Your task to perform on an android device: turn off sleep mode Image 0: 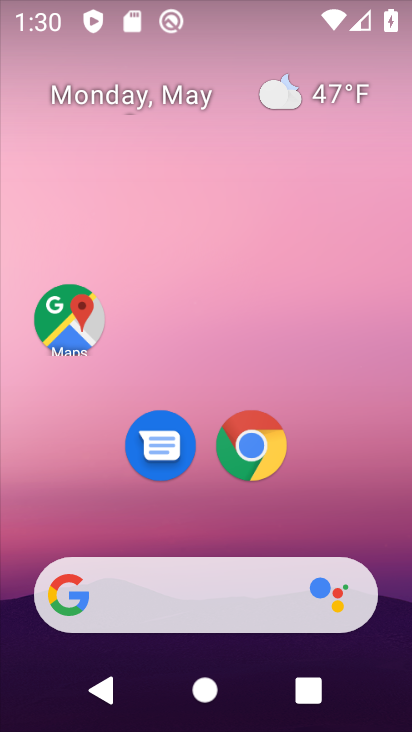
Step 0: drag from (266, 539) to (292, 20)
Your task to perform on an android device: turn off sleep mode Image 1: 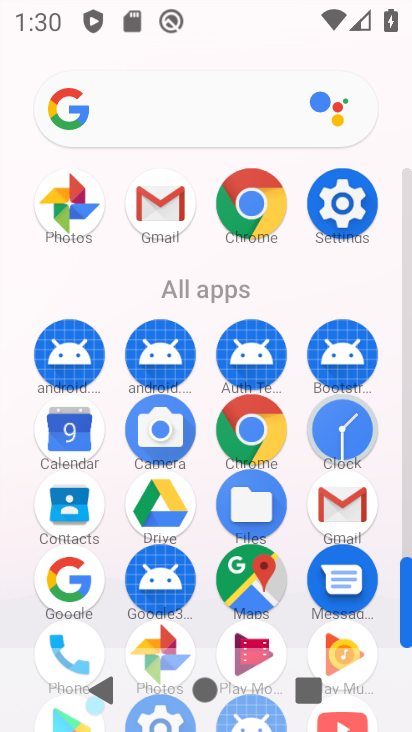
Step 1: click (333, 212)
Your task to perform on an android device: turn off sleep mode Image 2: 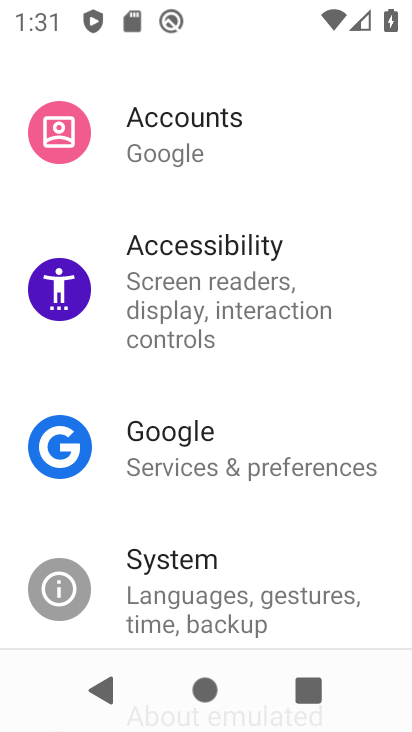
Step 2: drag from (197, 487) to (301, 95)
Your task to perform on an android device: turn off sleep mode Image 3: 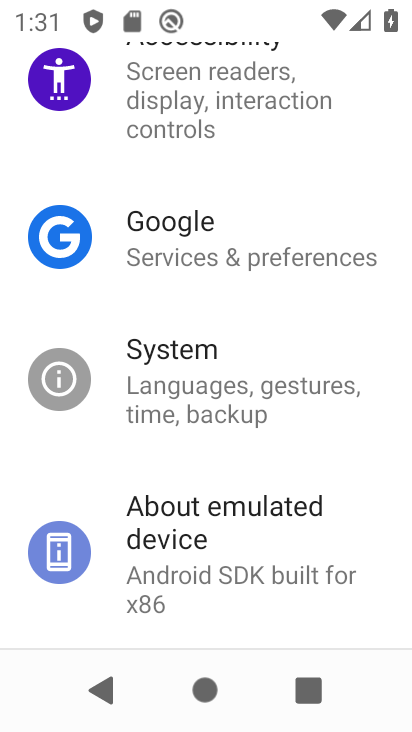
Step 3: drag from (288, 367) to (302, 458)
Your task to perform on an android device: turn off sleep mode Image 4: 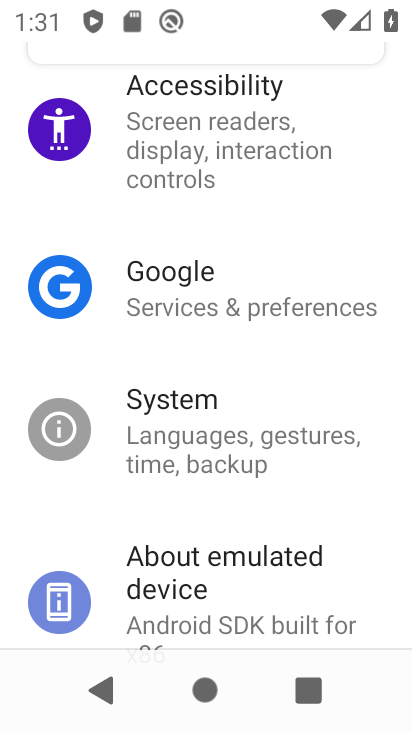
Step 4: drag from (296, 350) to (315, 453)
Your task to perform on an android device: turn off sleep mode Image 5: 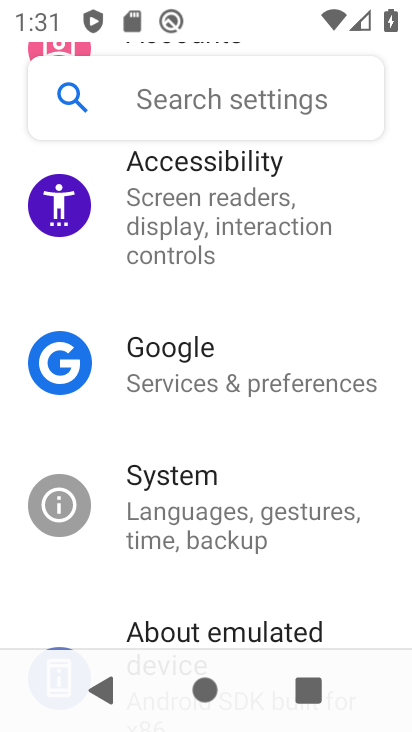
Step 5: drag from (282, 354) to (283, 448)
Your task to perform on an android device: turn off sleep mode Image 6: 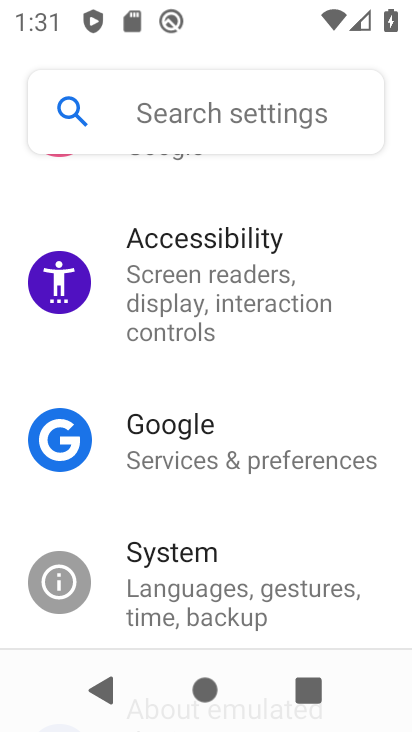
Step 6: drag from (268, 326) to (296, 388)
Your task to perform on an android device: turn off sleep mode Image 7: 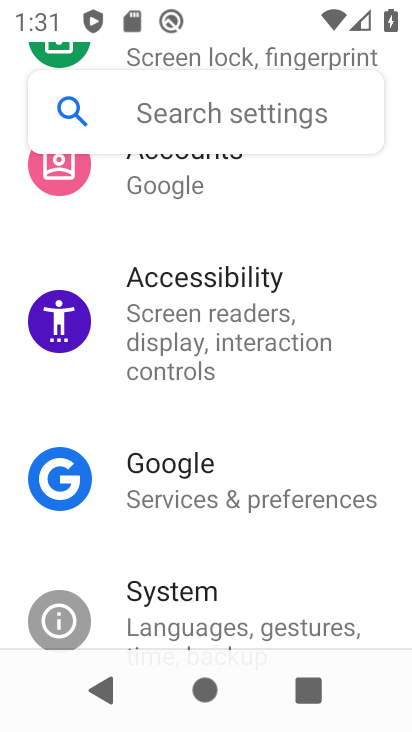
Step 7: drag from (296, 327) to (317, 406)
Your task to perform on an android device: turn off sleep mode Image 8: 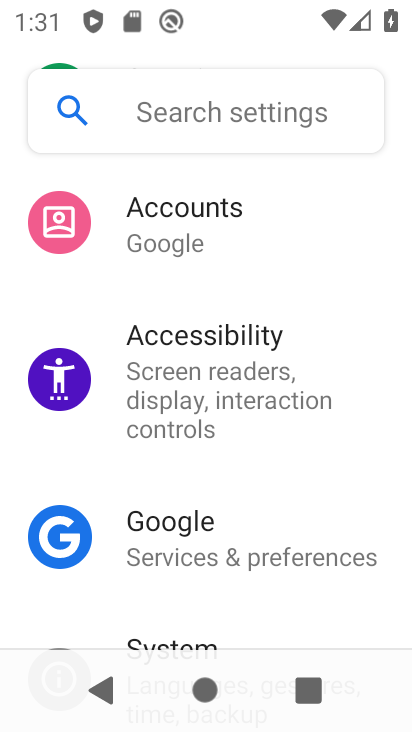
Step 8: drag from (304, 318) to (323, 412)
Your task to perform on an android device: turn off sleep mode Image 9: 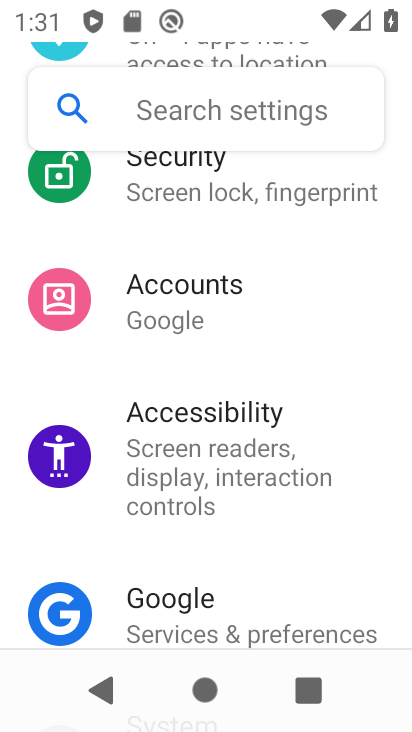
Step 9: drag from (314, 315) to (334, 396)
Your task to perform on an android device: turn off sleep mode Image 10: 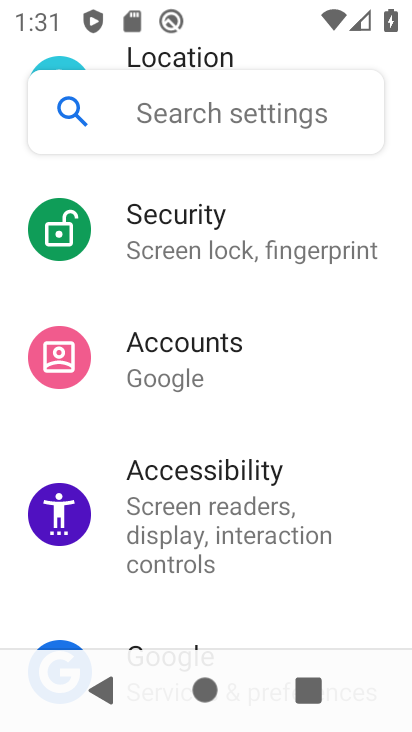
Step 10: drag from (292, 299) to (312, 365)
Your task to perform on an android device: turn off sleep mode Image 11: 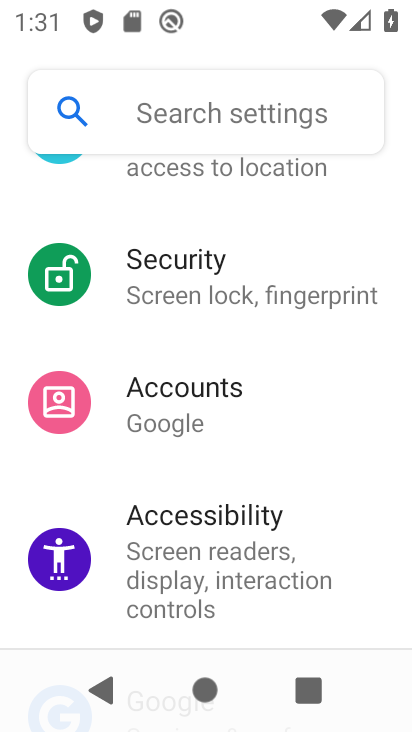
Step 11: drag from (300, 322) to (309, 362)
Your task to perform on an android device: turn off sleep mode Image 12: 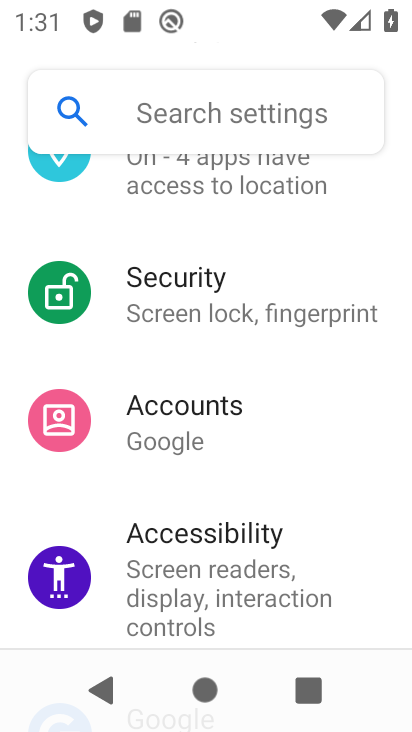
Step 12: drag from (299, 309) to (316, 359)
Your task to perform on an android device: turn off sleep mode Image 13: 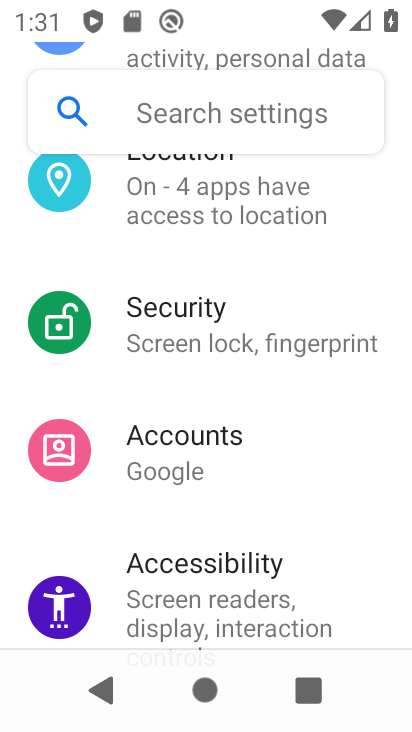
Step 13: drag from (299, 308) to (319, 358)
Your task to perform on an android device: turn off sleep mode Image 14: 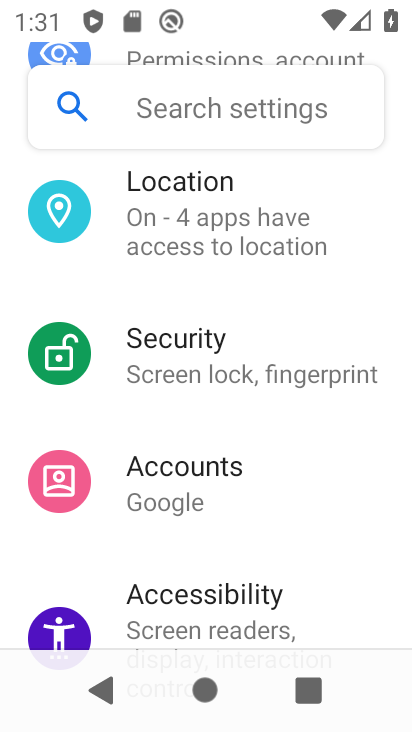
Step 14: drag from (327, 286) to (336, 334)
Your task to perform on an android device: turn off sleep mode Image 15: 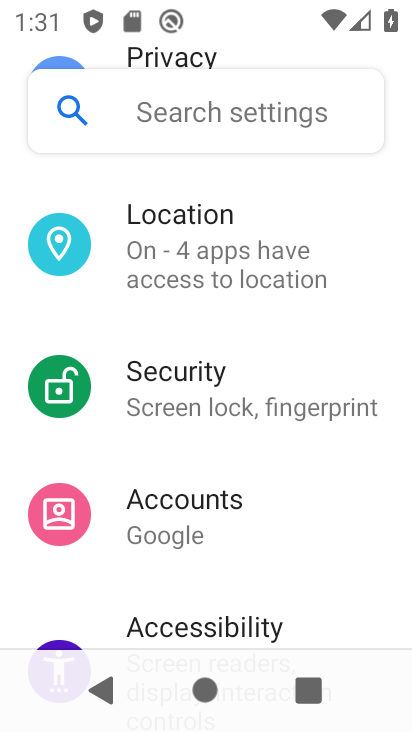
Step 15: drag from (327, 283) to (333, 342)
Your task to perform on an android device: turn off sleep mode Image 16: 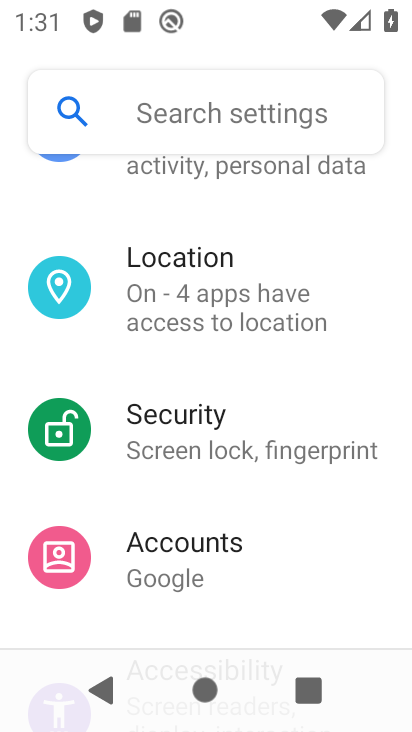
Step 16: drag from (322, 288) to (333, 363)
Your task to perform on an android device: turn off sleep mode Image 17: 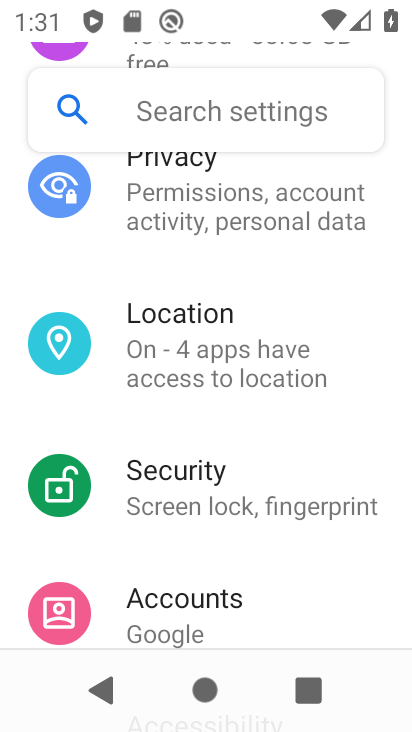
Step 17: drag from (306, 289) to (335, 360)
Your task to perform on an android device: turn off sleep mode Image 18: 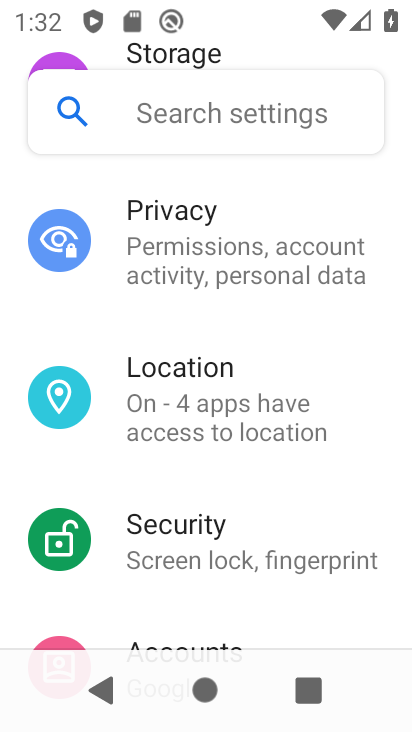
Step 18: drag from (322, 286) to (332, 361)
Your task to perform on an android device: turn off sleep mode Image 19: 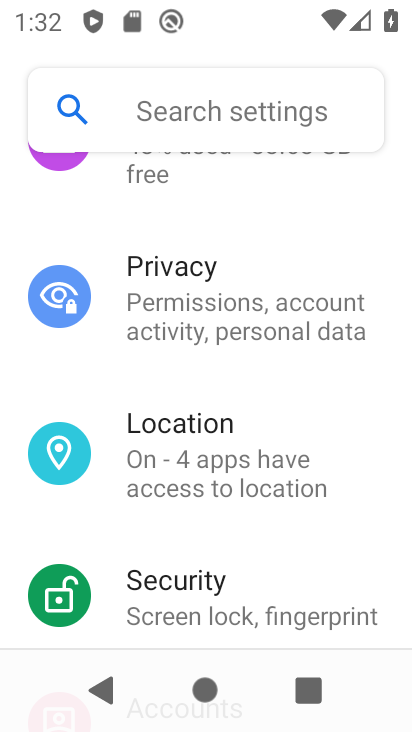
Step 19: drag from (309, 281) to (321, 360)
Your task to perform on an android device: turn off sleep mode Image 20: 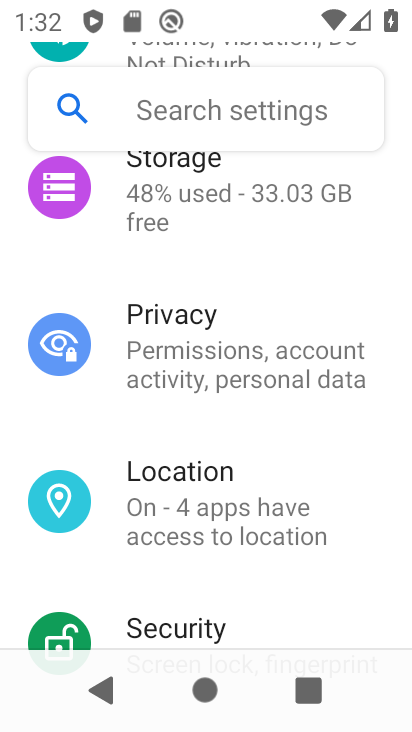
Step 20: drag from (294, 280) to (320, 401)
Your task to perform on an android device: turn off sleep mode Image 21: 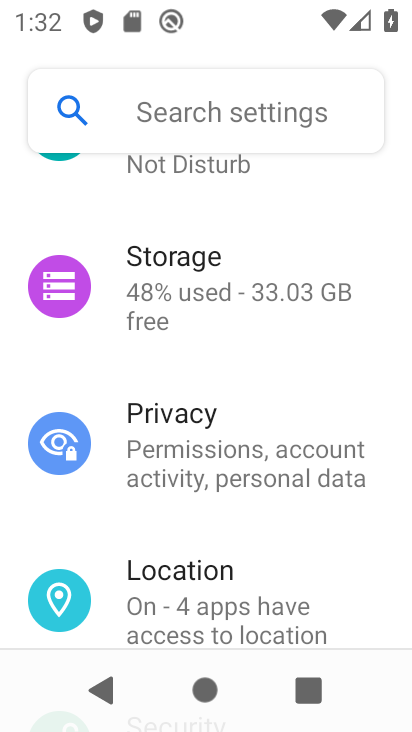
Step 21: drag from (278, 314) to (285, 420)
Your task to perform on an android device: turn off sleep mode Image 22: 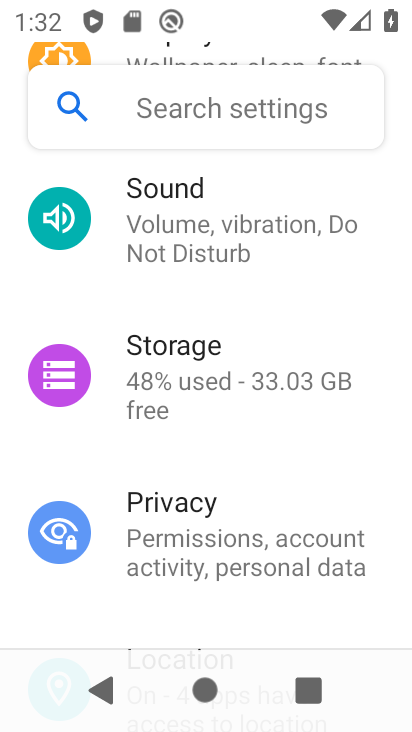
Step 22: drag from (271, 323) to (296, 418)
Your task to perform on an android device: turn off sleep mode Image 23: 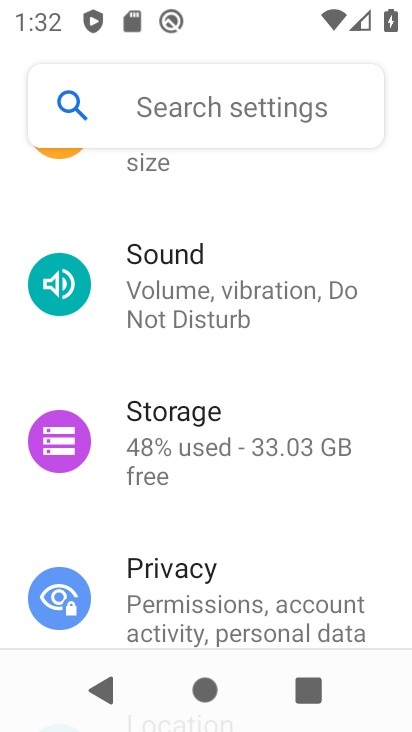
Step 23: drag from (305, 310) to (330, 386)
Your task to perform on an android device: turn off sleep mode Image 24: 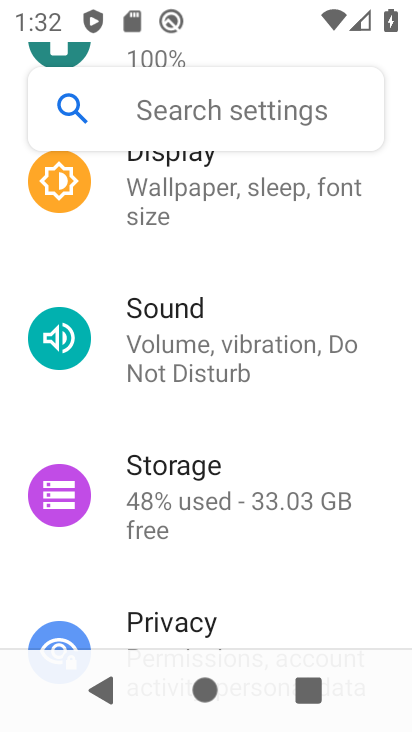
Step 24: drag from (312, 306) to (332, 369)
Your task to perform on an android device: turn off sleep mode Image 25: 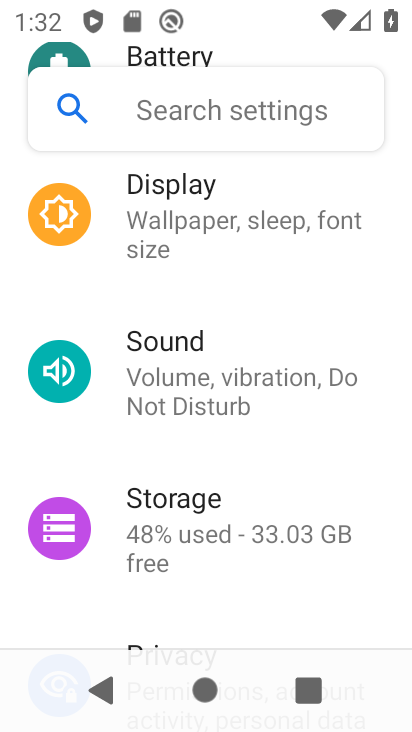
Step 25: drag from (317, 304) to (341, 411)
Your task to perform on an android device: turn off sleep mode Image 26: 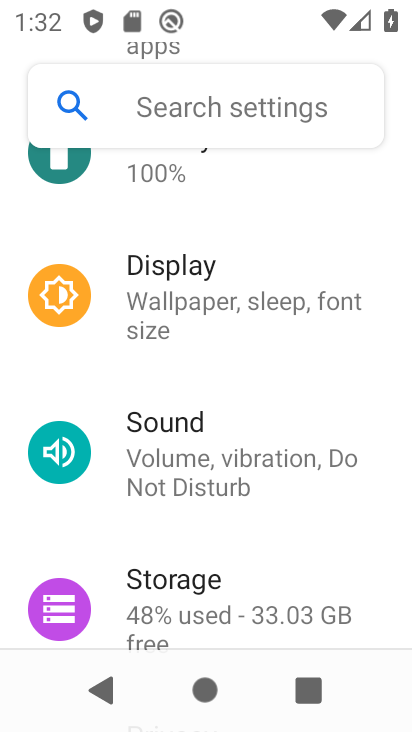
Step 26: drag from (315, 318) to (320, 416)
Your task to perform on an android device: turn off sleep mode Image 27: 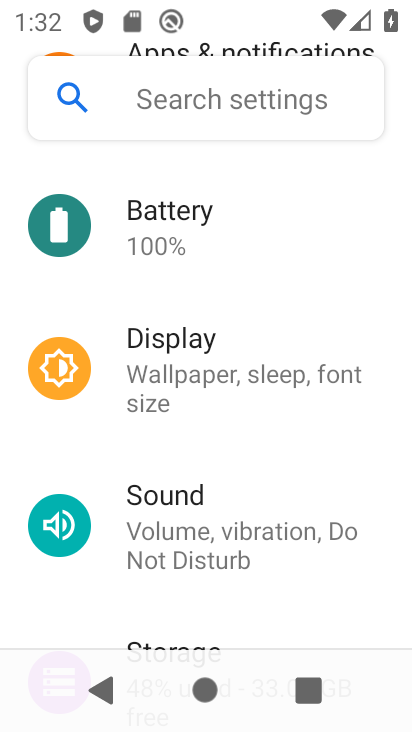
Step 27: drag from (287, 332) to (312, 432)
Your task to perform on an android device: turn off sleep mode Image 28: 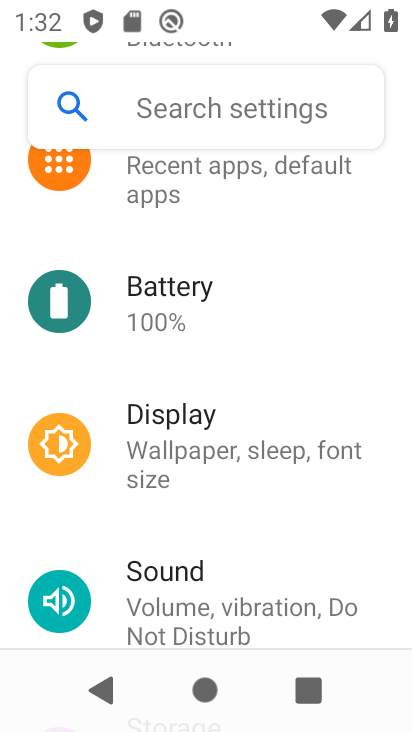
Step 28: drag from (271, 327) to (306, 462)
Your task to perform on an android device: turn off sleep mode Image 29: 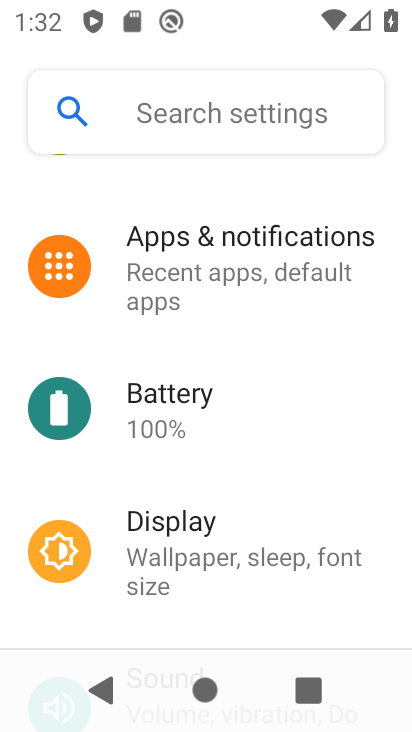
Step 29: drag from (281, 296) to (289, 418)
Your task to perform on an android device: turn off sleep mode Image 30: 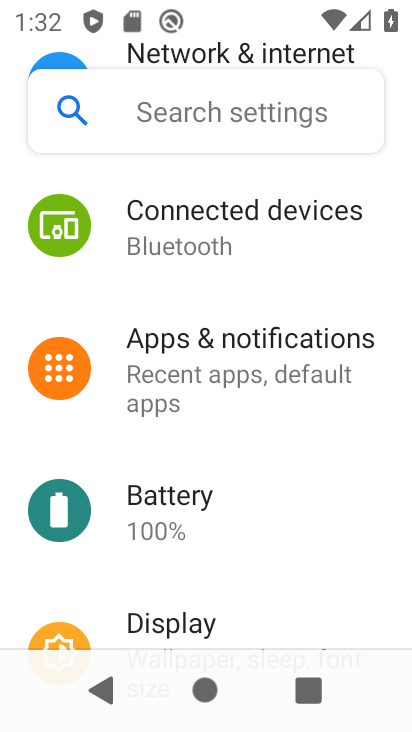
Step 30: drag from (283, 302) to (297, 565)
Your task to perform on an android device: turn off sleep mode Image 31: 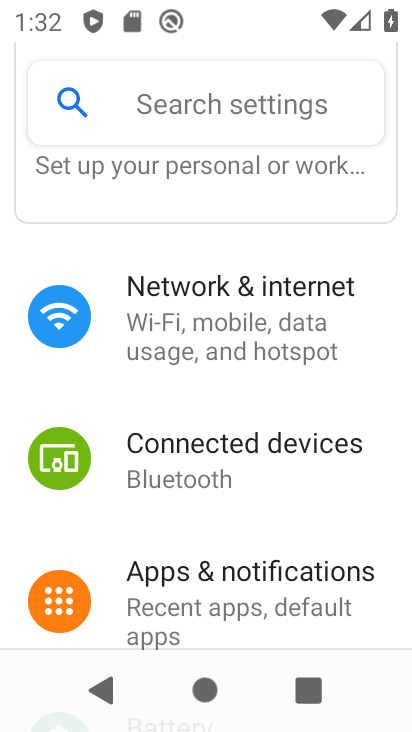
Step 31: drag from (244, 327) to (227, 108)
Your task to perform on an android device: turn off sleep mode Image 32: 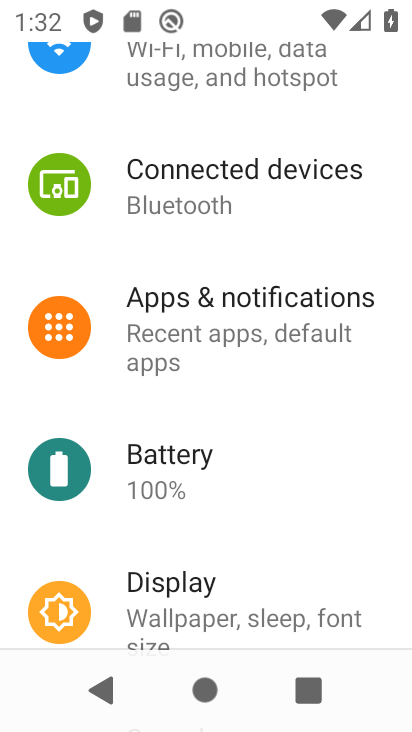
Step 32: drag from (163, 512) to (177, 353)
Your task to perform on an android device: turn off sleep mode Image 33: 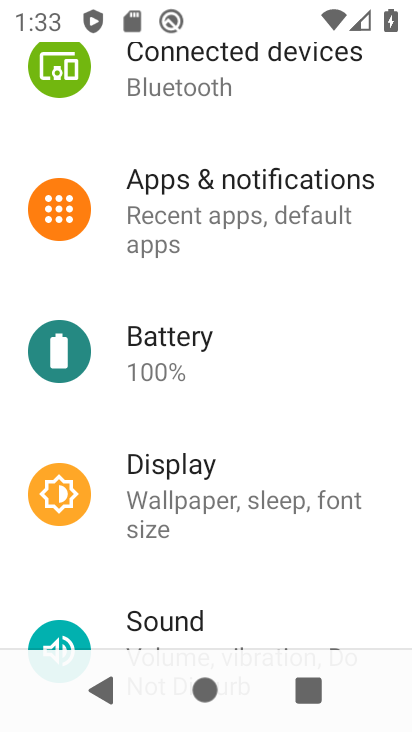
Step 33: click (188, 456)
Your task to perform on an android device: turn off sleep mode Image 34: 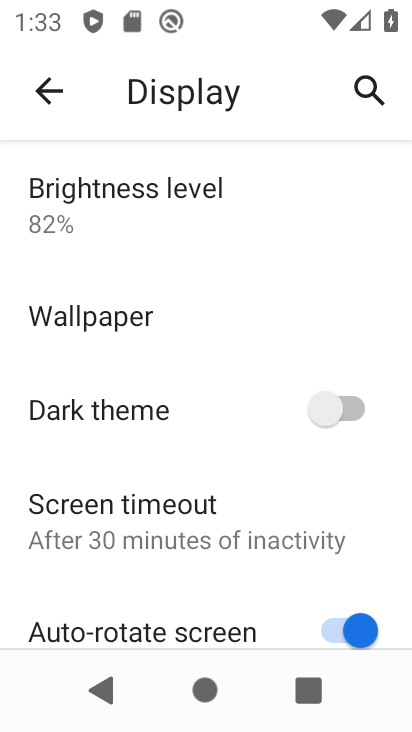
Step 34: drag from (256, 585) to (306, 164)
Your task to perform on an android device: turn off sleep mode Image 35: 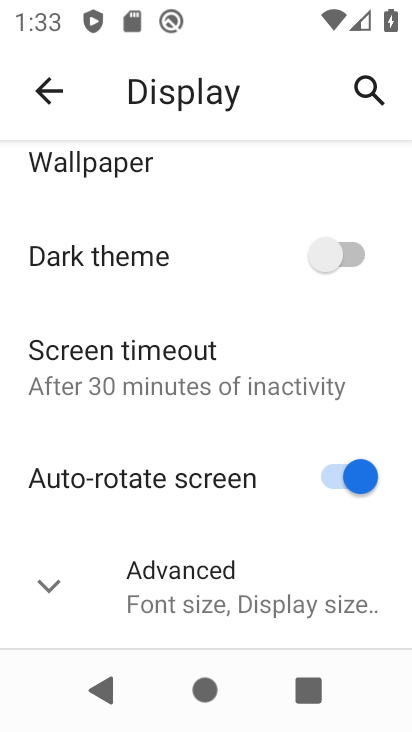
Step 35: click (210, 602)
Your task to perform on an android device: turn off sleep mode Image 36: 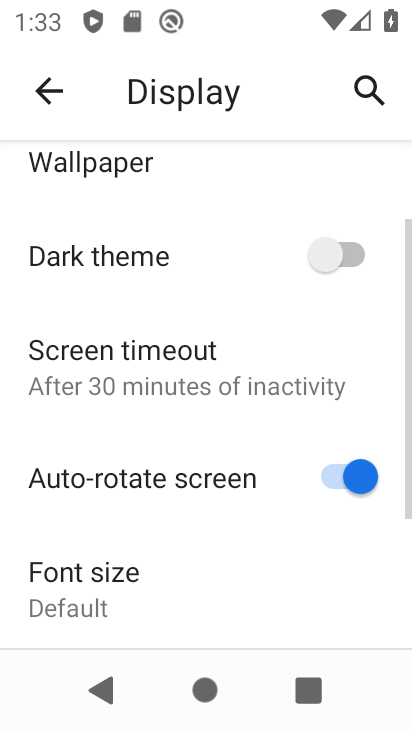
Step 36: task complete